Your task to perform on an android device: Open Google Chrome and click the shortcut for Amazon.com Image 0: 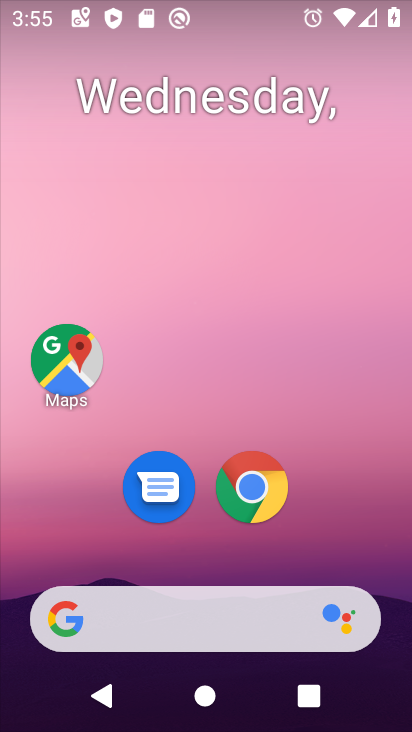
Step 0: drag from (366, 550) to (375, 92)
Your task to perform on an android device: Open Google Chrome and click the shortcut for Amazon.com Image 1: 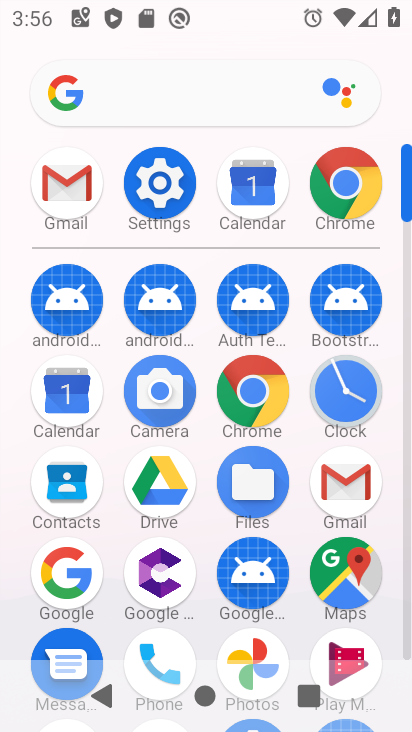
Step 1: click (274, 394)
Your task to perform on an android device: Open Google Chrome and click the shortcut for Amazon.com Image 2: 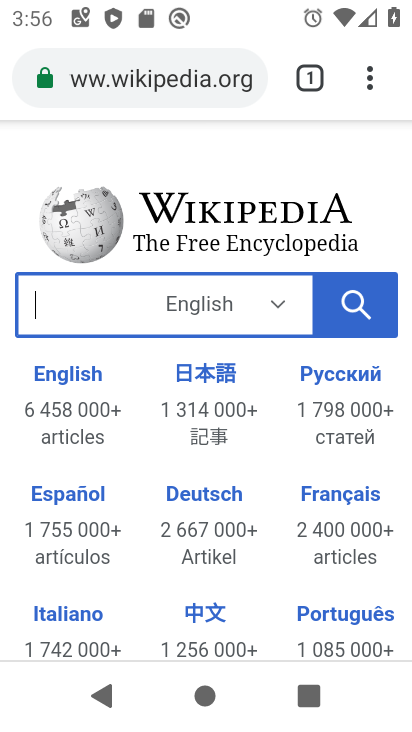
Step 2: press back button
Your task to perform on an android device: Open Google Chrome and click the shortcut for Amazon.com Image 3: 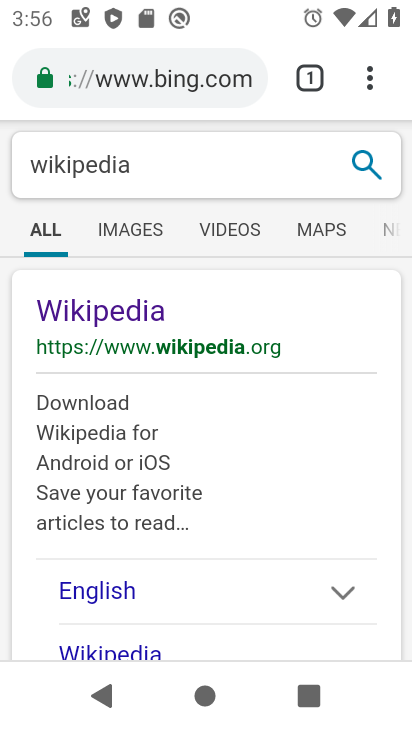
Step 3: press back button
Your task to perform on an android device: Open Google Chrome and click the shortcut for Amazon.com Image 4: 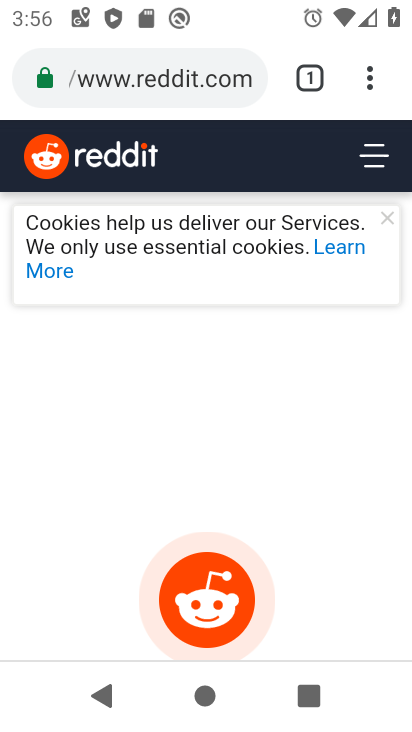
Step 4: press back button
Your task to perform on an android device: Open Google Chrome and click the shortcut for Amazon.com Image 5: 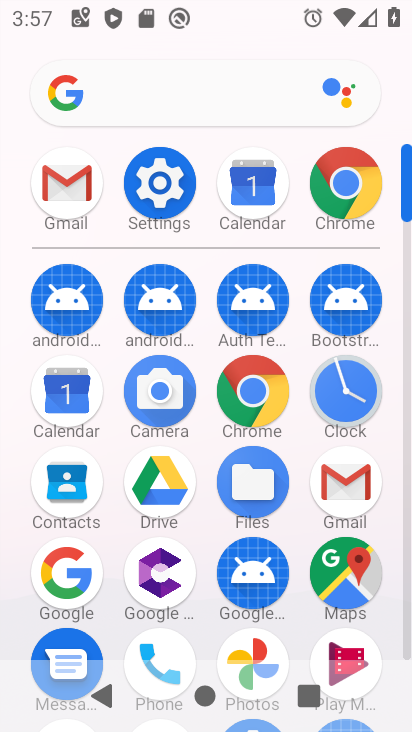
Step 5: click (259, 401)
Your task to perform on an android device: Open Google Chrome and click the shortcut for Amazon.com Image 6: 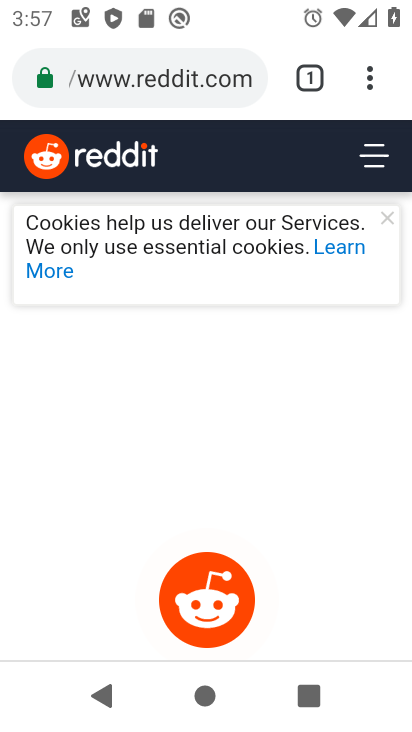
Step 6: press back button
Your task to perform on an android device: Open Google Chrome and click the shortcut for Amazon.com Image 7: 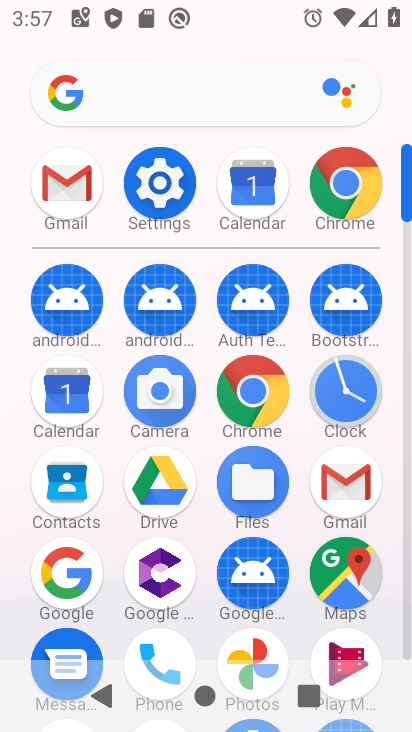
Step 7: click (251, 397)
Your task to perform on an android device: Open Google Chrome and click the shortcut for Amazon.com Image 8: 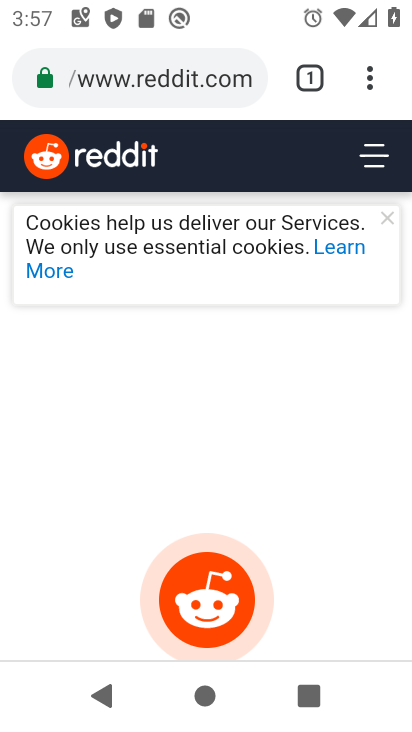
Step 8: click (202, 73)
Your task to perform on an android device: Open Google Chrome and click the shortcut for Amazon.com Image 9: 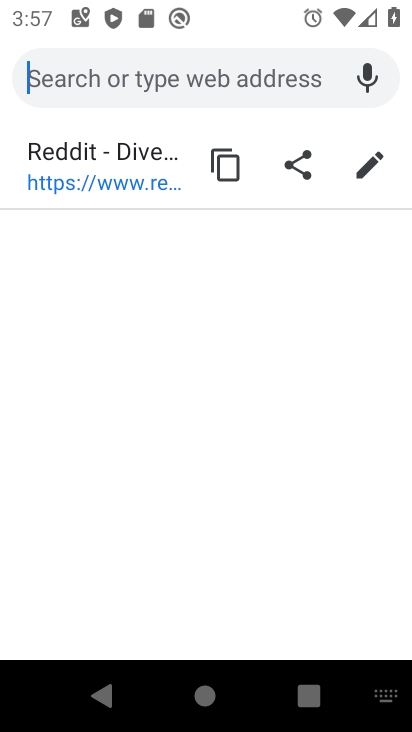
Step 9: type "amzone.com"
Your task to perform on an android device: Open Google Chrome and click the shortcut for Amazon.com Image 10: 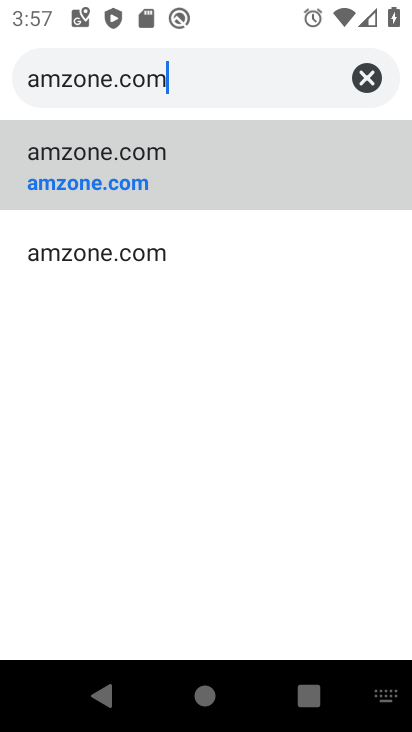
Step 10: click (97, 151)
Your task to perform on an android device: Open Google Chrome and click the shortcut for Amazon.com Image 11: 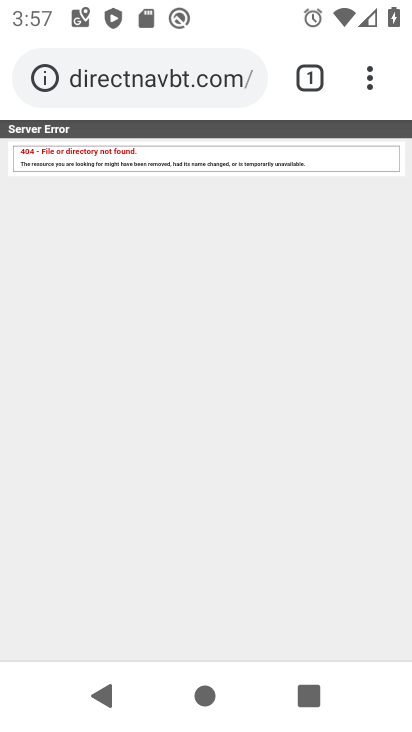
Step 11: task complete